Your task to perform on an android device: Open calendar and show me the second week of next month Image 0: 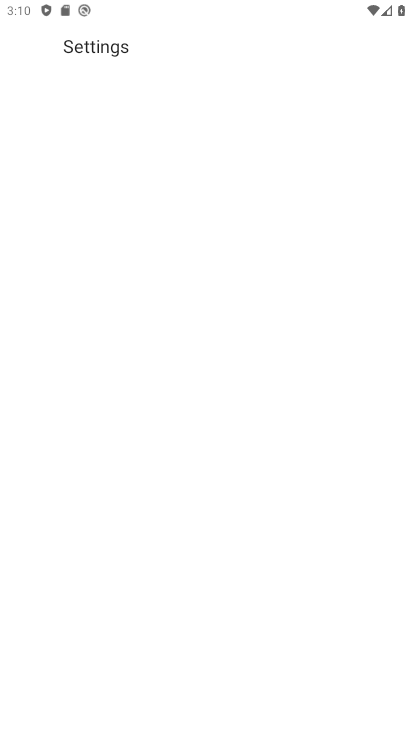
Step 0: press home button
Your task to perform on an android device: Open calendar and show me the second week of next month Image 1: 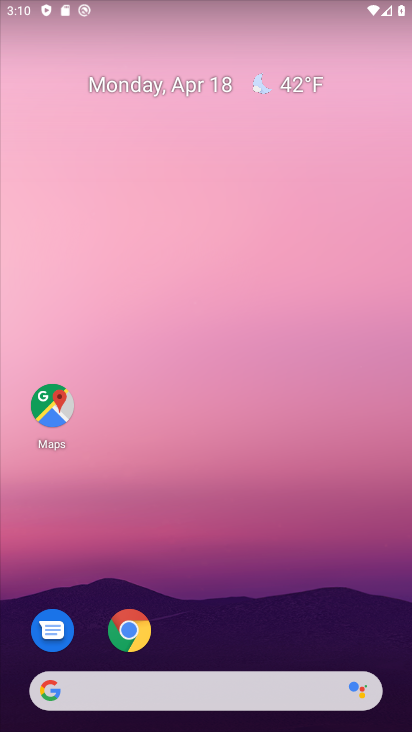
Step 1: drag from (224, 422) to (233, 270)
Your task to perform on an android device: Open calendar and show me the second week of next month Image 2: 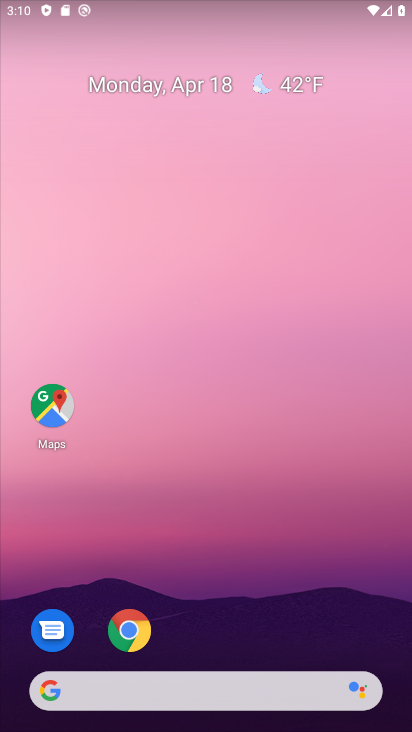
Step 2: drag from (231, 477) to (278, 224)
Your task to perform on an android device: Open calendar and show me the second week of next month Image 3: 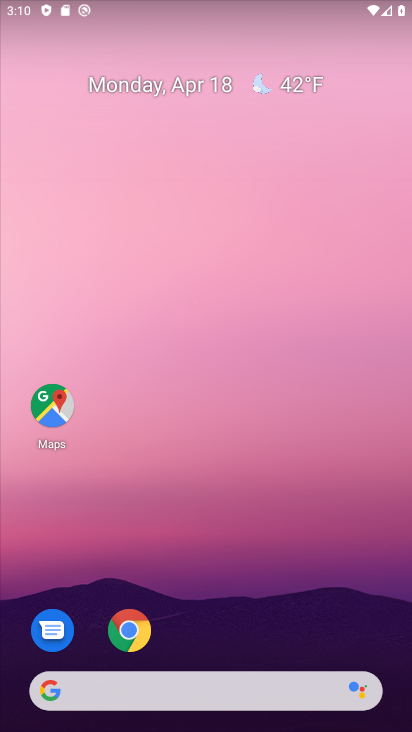
Step 3: drag from (276, 388) to (306, 181)
Your task to perform on an android device: Open calendar and show me the second week of next month Image 4: 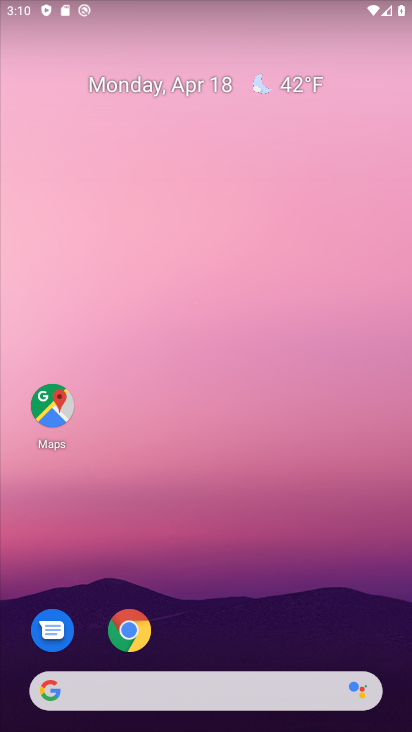
Step 4: drag from (257, 492) to (270, 142)
Your task to perform on an android device: Open calendar and show me the second week of next month Image 5: 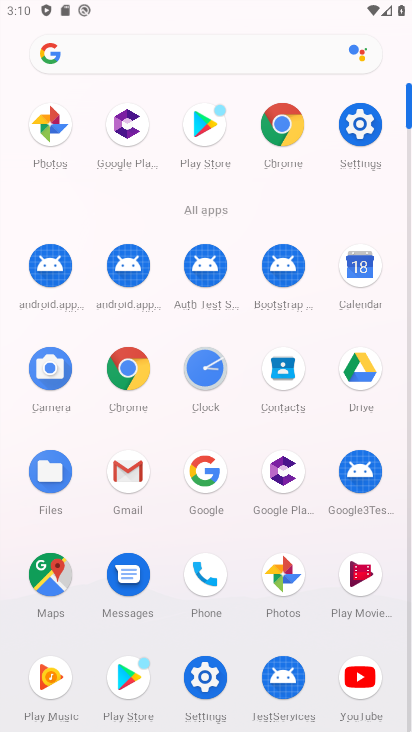
Step 5: click (354, 260)
Your task to perform on an android device: Open calendar and show me the second week of next month Image 6: 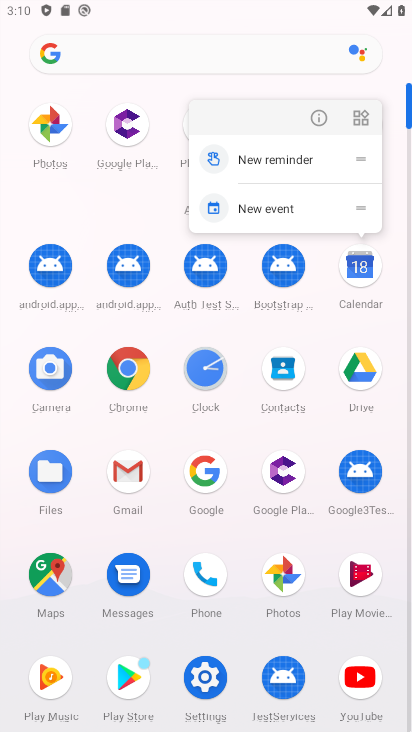
Step 6: click (354, 260)
Your task to perform on an android device: Open calendar and show me the second week of next month Image 7: 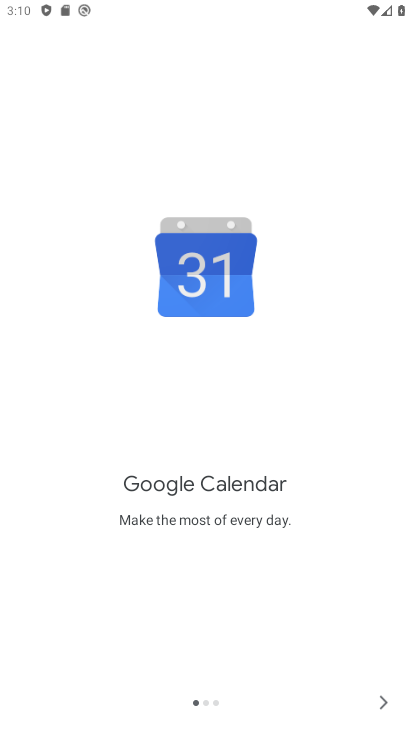
Step 7: click (359, 695)
Your task to perform on an android device: Open calendar and show me the second week of next month Image 8: 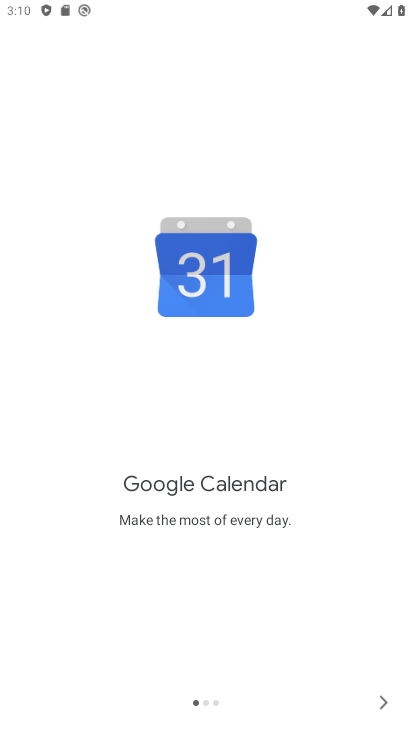
Step 8: click (372, 696)
Your task to perform on an android device: Open calendar and show me the second week of next month Image 9: 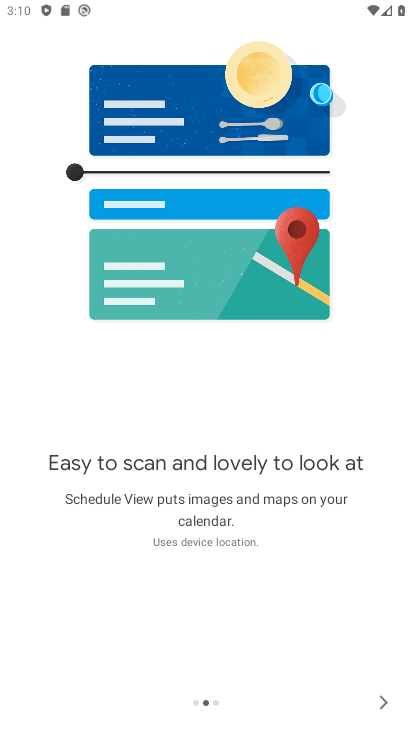
Step 9: click (372, 696)
Your task to perform on an android device: Open calendar and show me the second week of next month Image 10: 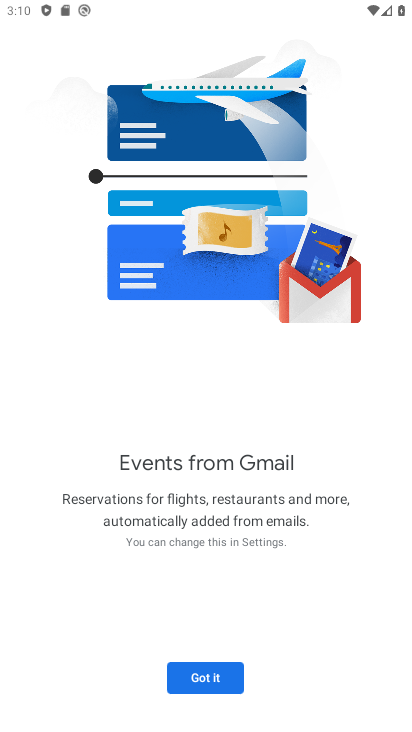
Step 10: click (223, 666)
Your task to perform on an android device: Open calendar and show me the second week of next month Image 11: 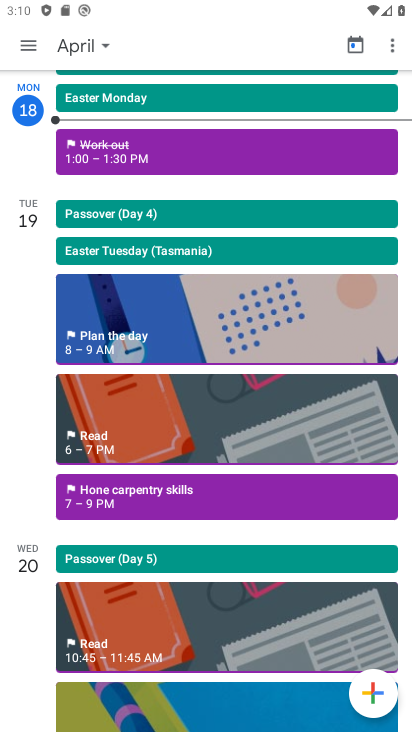
Step 11: click (21, 41)
Your task to perform on an android device: Open calendar and show me the second week of next month Image 12: 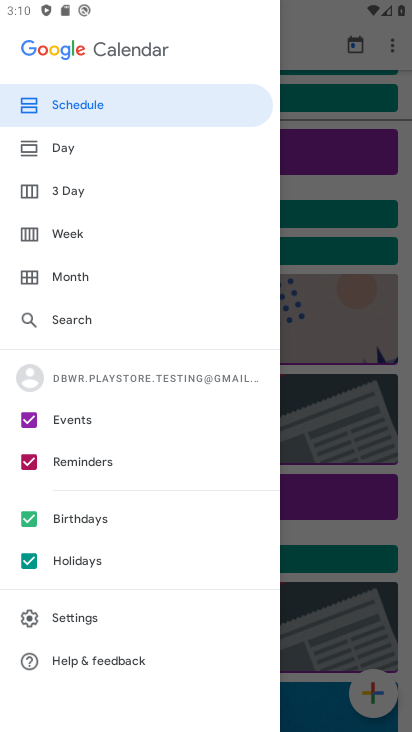
Step 12: click (104, 282)
Your task to perform on an android device: Open calendar and show me the second week of next month Image 13: 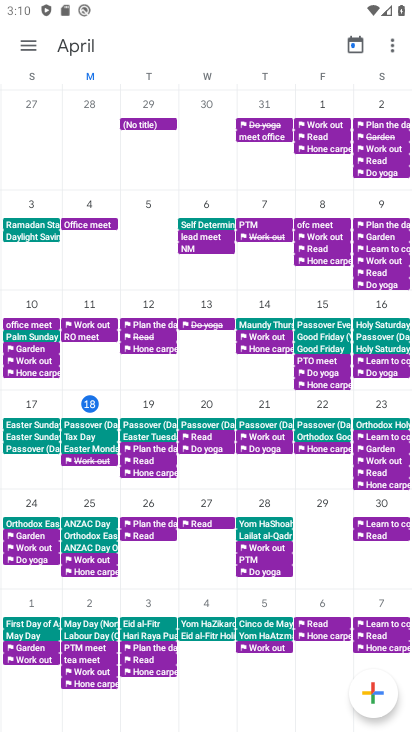
Step 13: task complete